Your task to perform on an android device: Open a new incognito window in the chrome app Image 0: 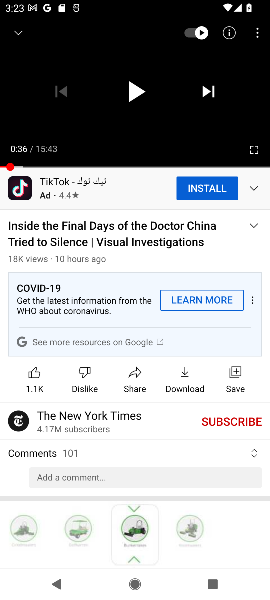
Step 0: press home button
Your task to perform on an android device: Open a new incognito window in the chrome app Image 1: 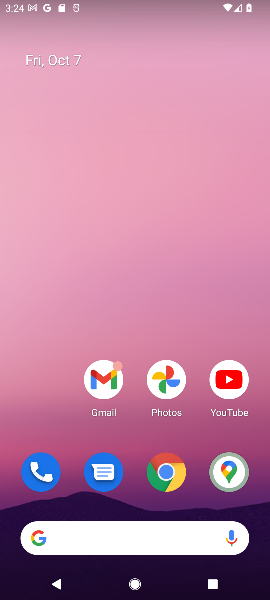
Step 1: click (164, 473)
Your task to perform on an android device: Open a new incognito window in the chrome app Image 2: 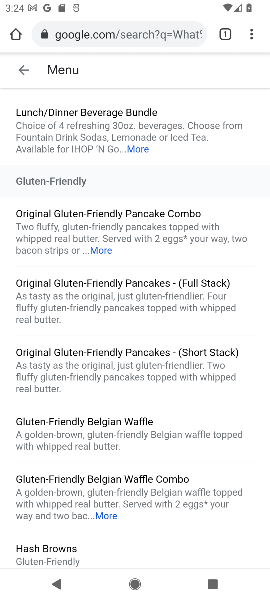
Step 2: click (253, 37)
Your task to perform on an android device: Open a new incognito window in the chrome app Image 3: 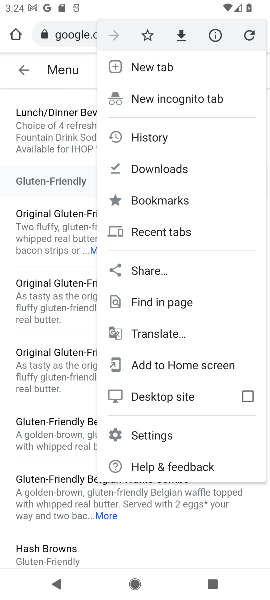
Step 3: click (216, 98)
Your task to perform on an android device: Open a new incognito window in the chrome app Image 4: 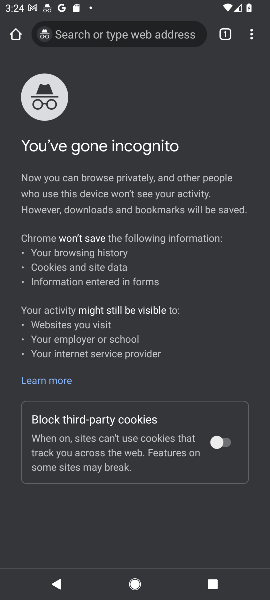
Step 4: task complete